Your task to perform on an android device: turn off translation in the chrome app Image 0: 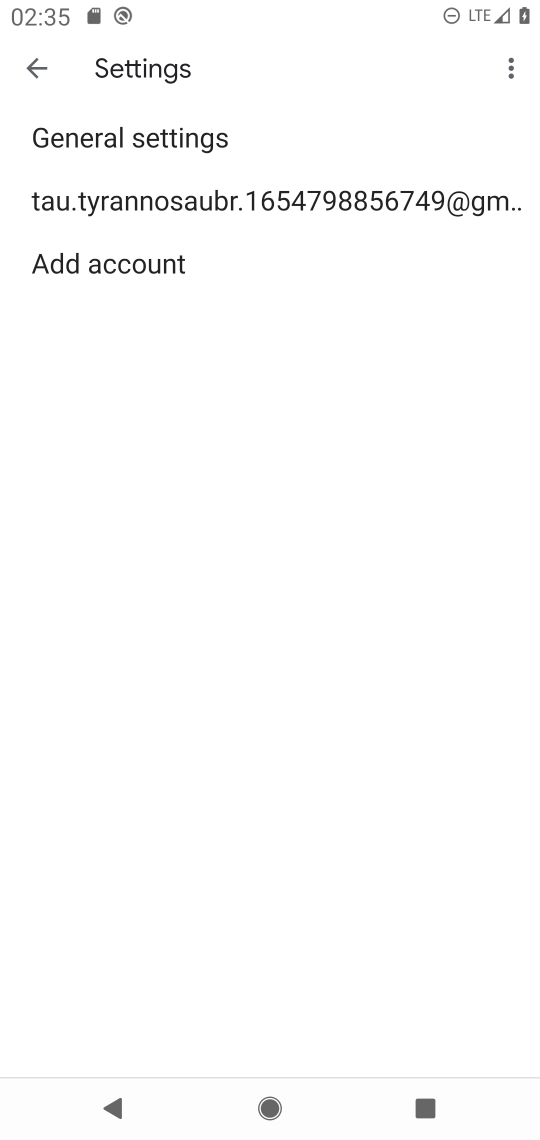
Step 0: press home button
Your task to perform on an android device: turn off translation in the chrome app Image 1: 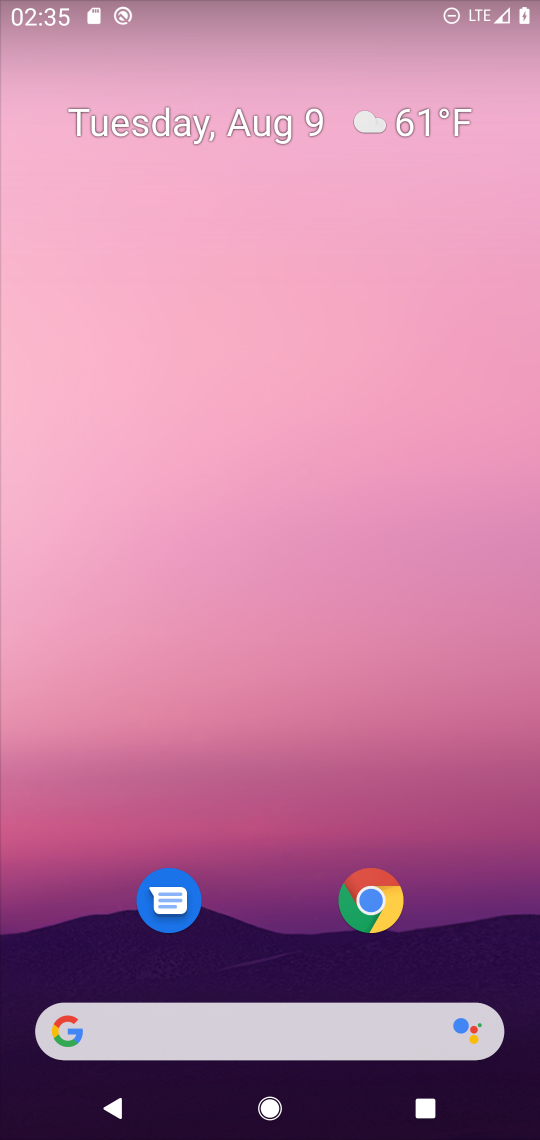
Step 1: drag from (437, 872) to (441, 198)
Your task to perform on an android device: turn off translation in the chrome app Image 2: 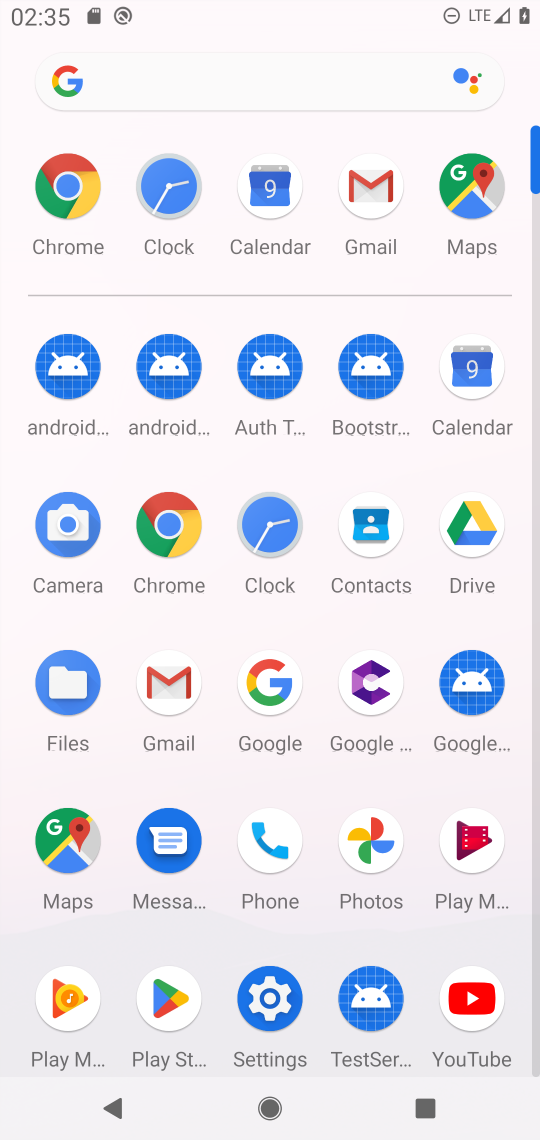
Step 2: click (174, 536)
Your task to perform on an android device: turn off translation in the chrome app Image 3: 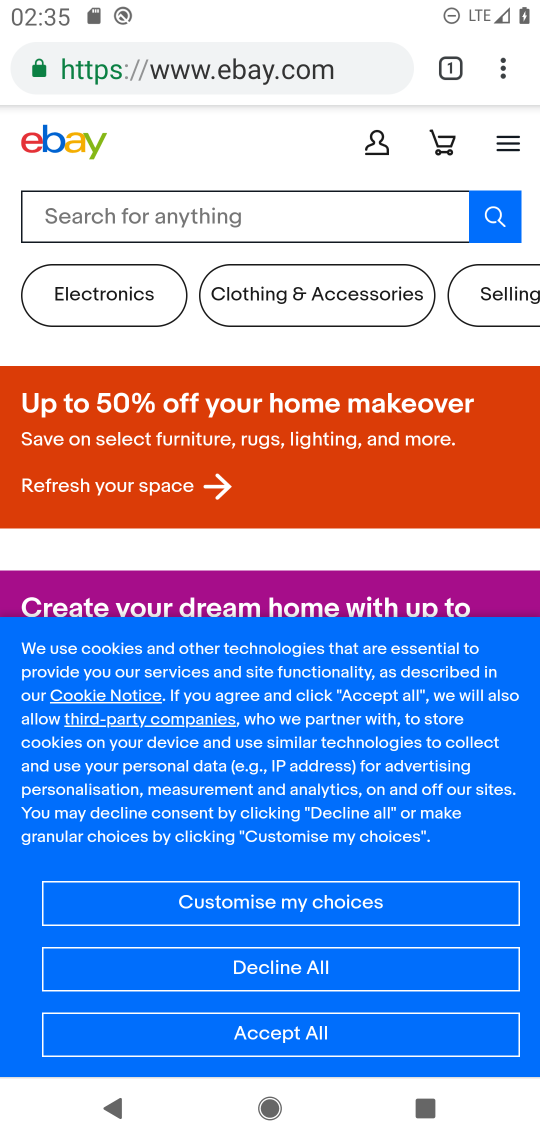
Step 3: click (502, 65)
Your task to perform on an android device: turn off translation in the chrome app Image 4: 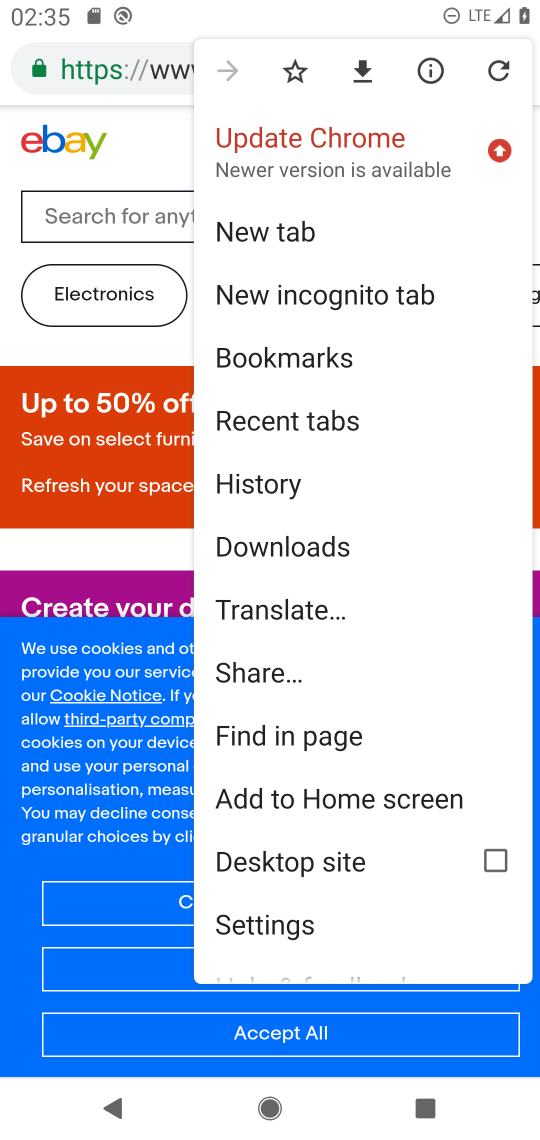
Step 4: click (279, 917)
Your task to perform on an android device: turn off translation in the chrome app Image 5: 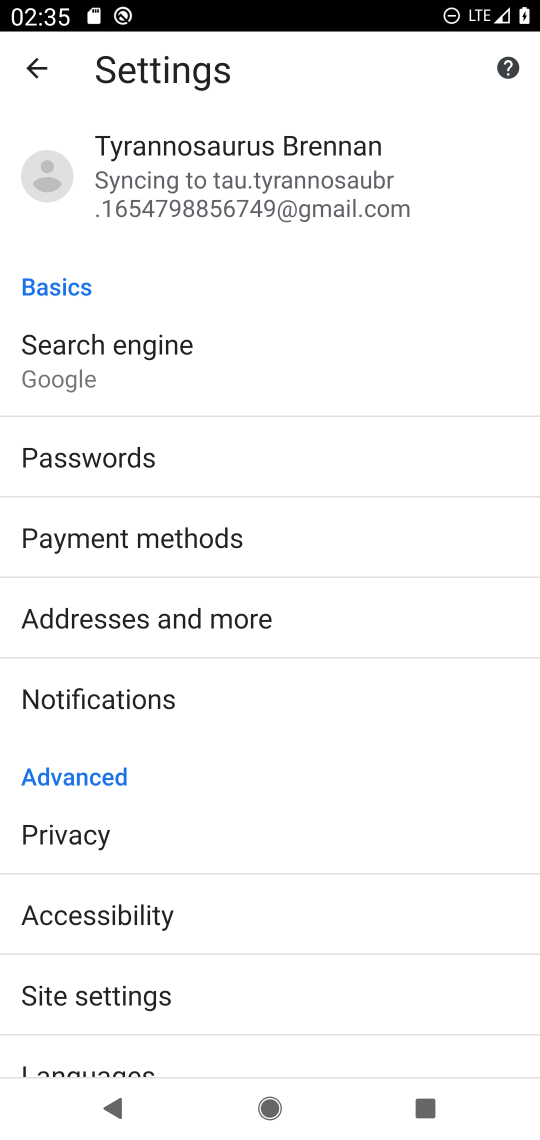
Step 5: drag from (407, 843) to (434, 645)
Your task to perform on an android device: turn off translation in the chrome app Image 6: 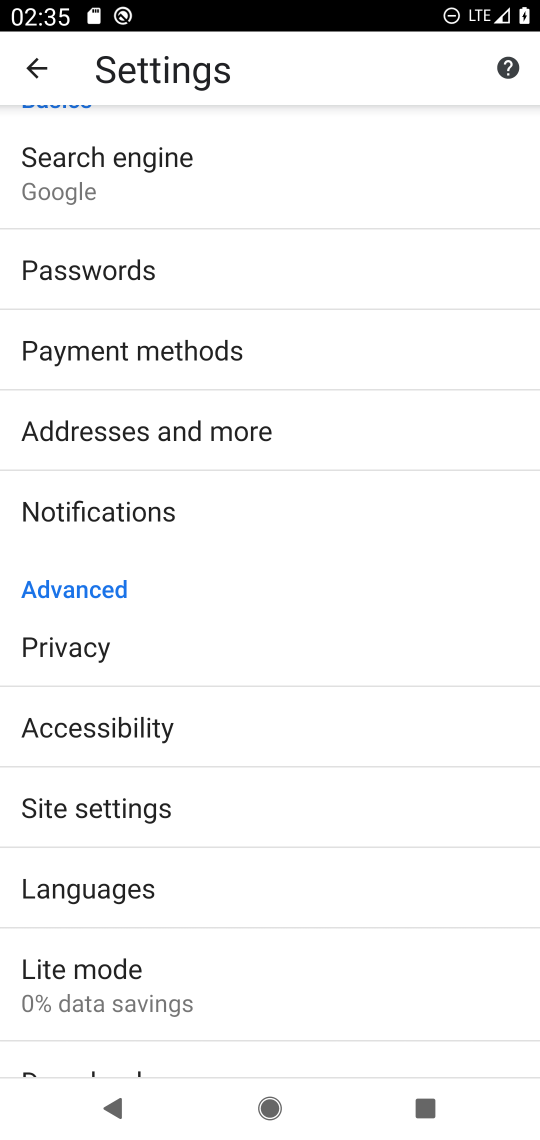
Step 6: drag from (393, 879) to (420, 630)
Your task to perform on an android device: turn off translation in the chrome app Image 7: 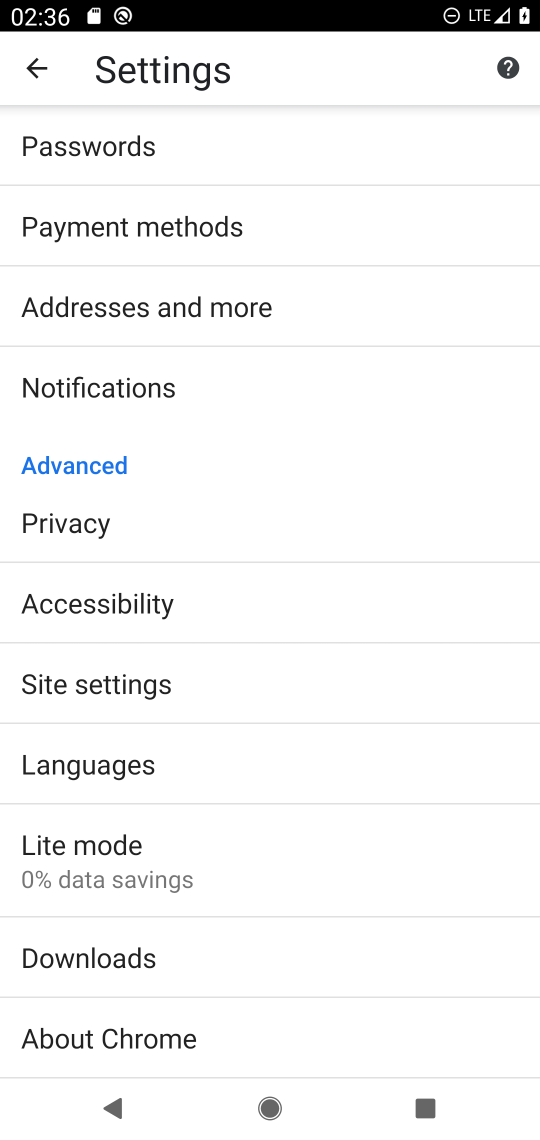
Step 7: click (291, 775)
Your task to perform on an android device: turn off translation in the chrome app Image 8: 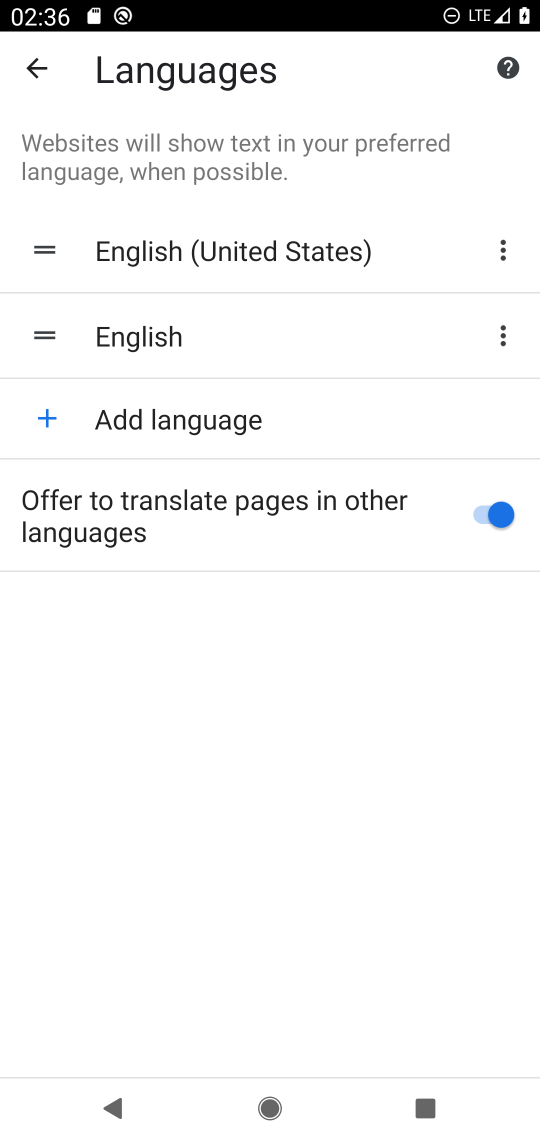
Step 8: click (510, 492)
Your task to perform on an android device: turn off translation in the chrome app Image 9: 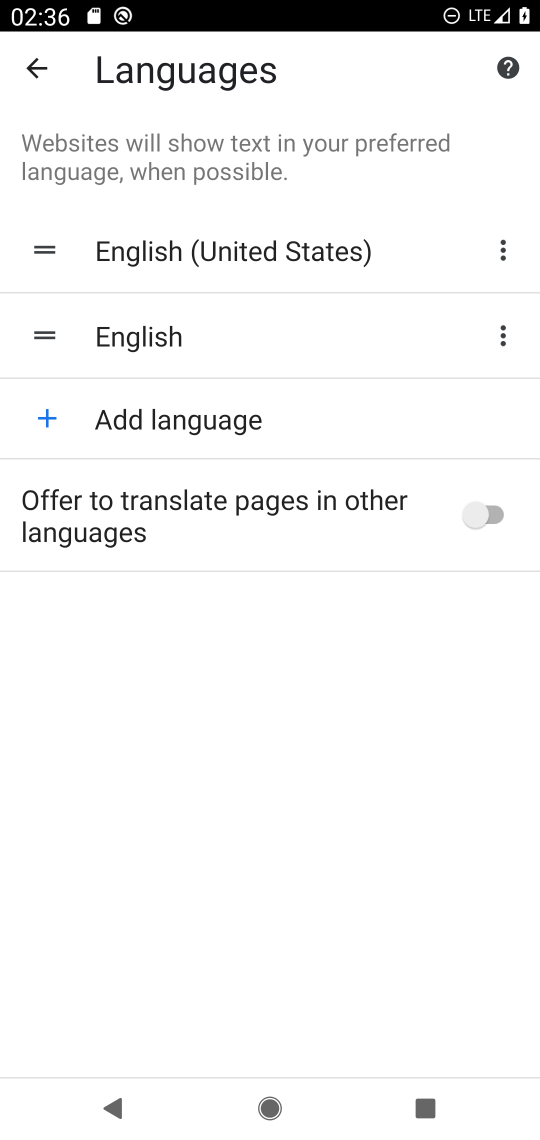
Step 9: task complete